Your task to perform on an android device: Do I have any events today? Image 0: 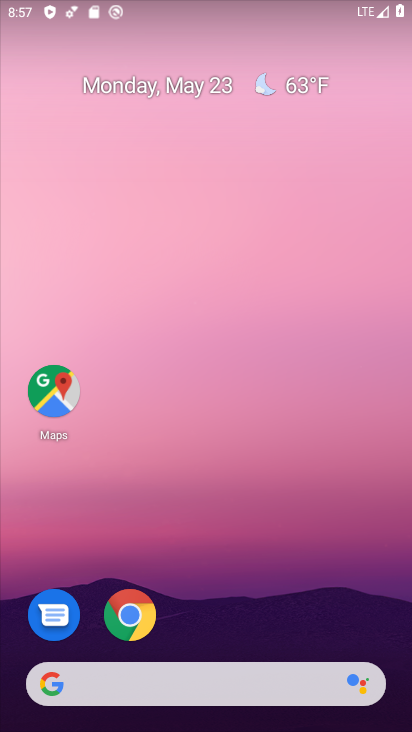
Step 0: drag from (245, 589) to (261, 113)
Your task to perform on an android device: Do I have any events today? Image 1: 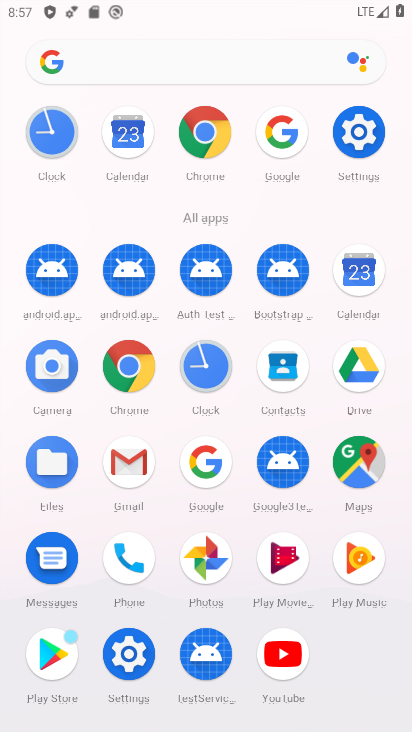
Step 1: click (358, 257)
Your task to perform on an android device: Do I have any events today? Image 2: 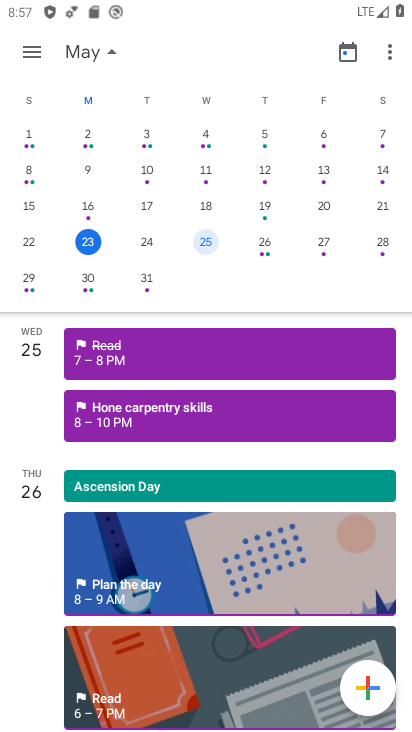
Step 2: click (87, 240)
Your task to perform on an android device: Do I have any events today? Image 3: 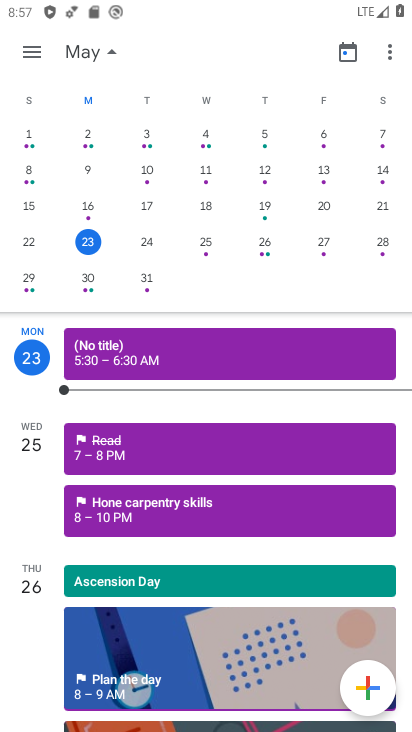
Step 3: task complete